Your task to perform on an android device: Open the map Image 0: 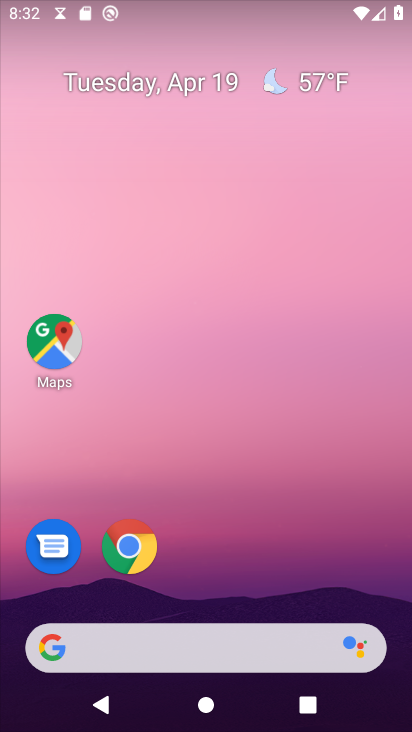
Step 0: click (48, 349)
Your task to perform on an android device: Open the map Image 1: 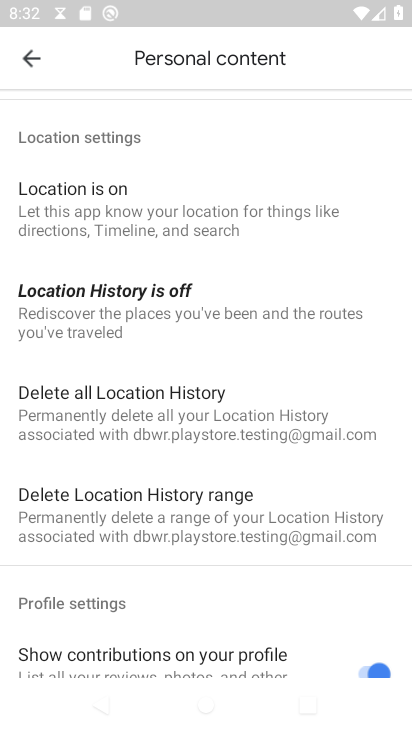
Step 1: click (33, 60)
Your task to perform on an android device: Open the map Image 2: 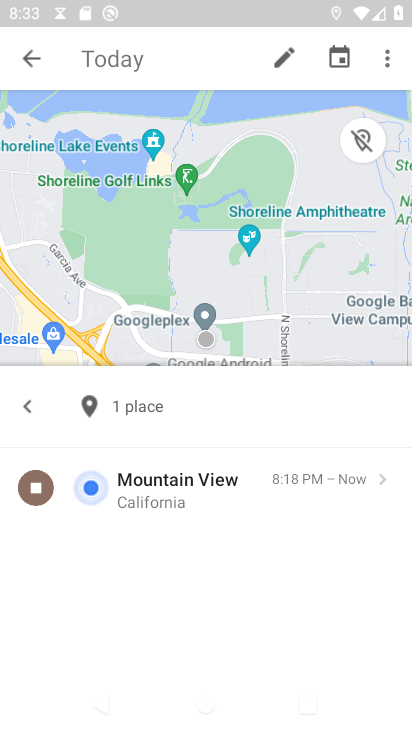
Step 2: click (43, 51)
Your task to perform on an android device: Open the map Image 3: 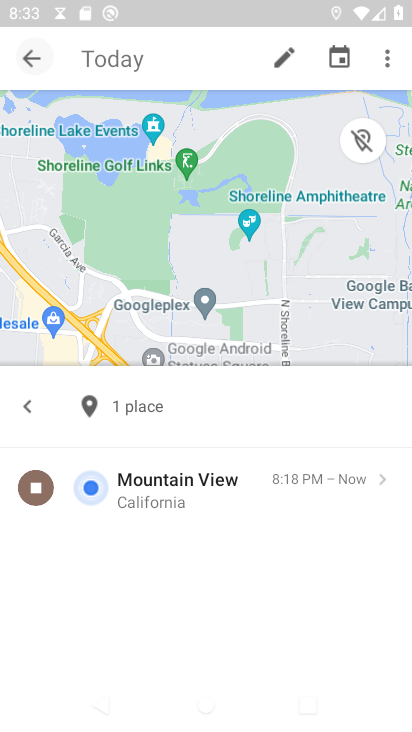
Step 3: task complete